Your task to perform on an android device: turn pop-ups off in chrome Image 0: 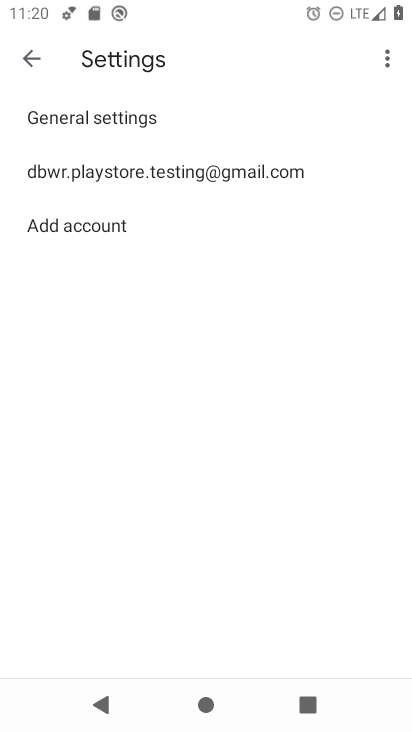
Step 0: press home button
Your task to perform on an android device: turn pop-ups off in chrome Image 1: 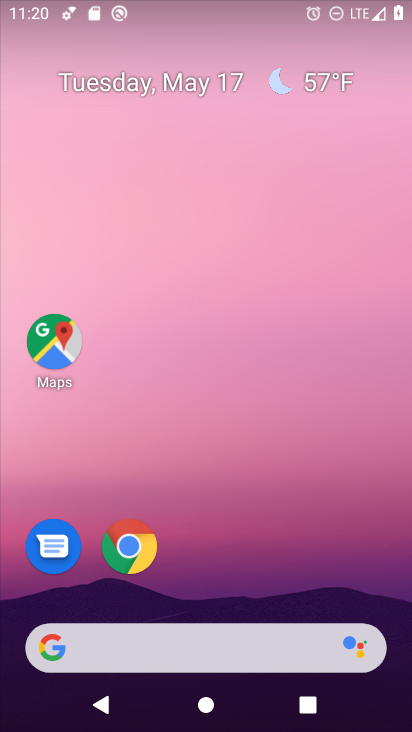
Step 1: click (131, 548)
Your task to perform on an android device: turn pop-ups off in chrome Image 2: 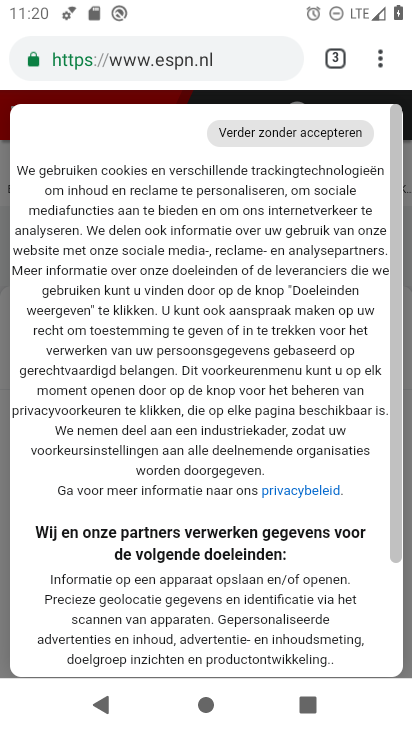
Step 2: click (131, 548)
Your task to perform on an android device: turn pop-ups off in chrome Image 3: 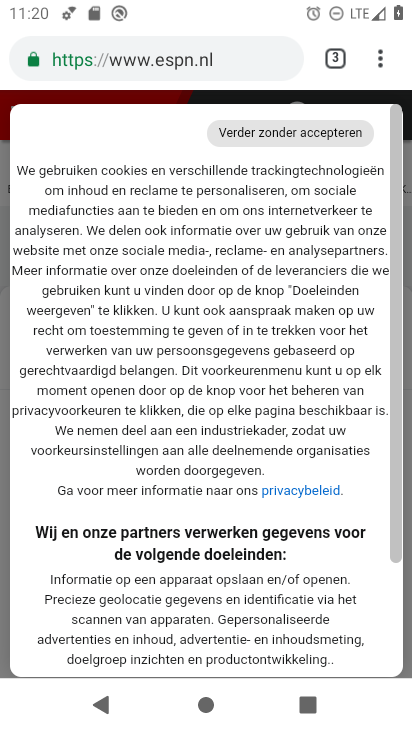
Step 3: click (378, 59)
Your task to perform on an android device: turn pop-ups off in chrome Image 4: 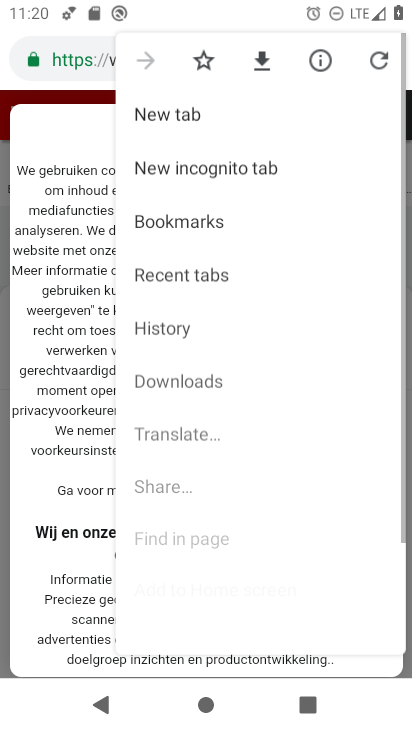
Step 4: click (382, 59)
Your task to perform on an android device: turn pop-ups off in chrome Image 5: 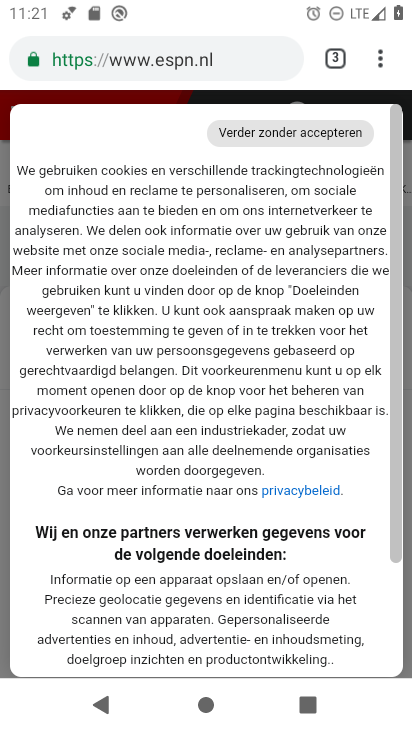
Step 5: click (382, 57)
Your task to perform on an android device: turn pop-ups off in chrome Image 6: 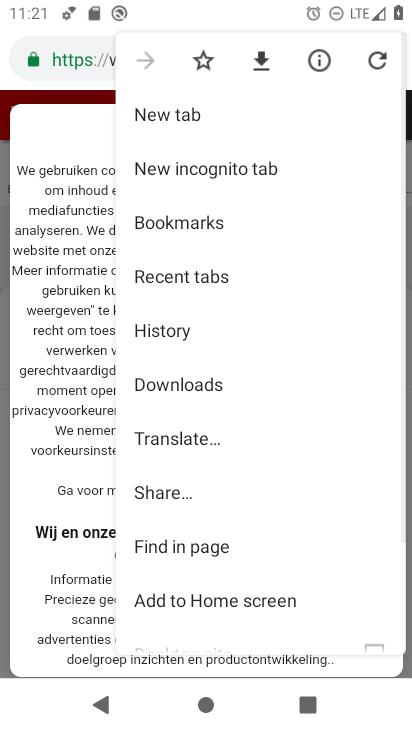
Step 6: drag from (181, 523) to (195, 119)
Your task to perform on an android device: turn pop-ups off in chrome Image 7: 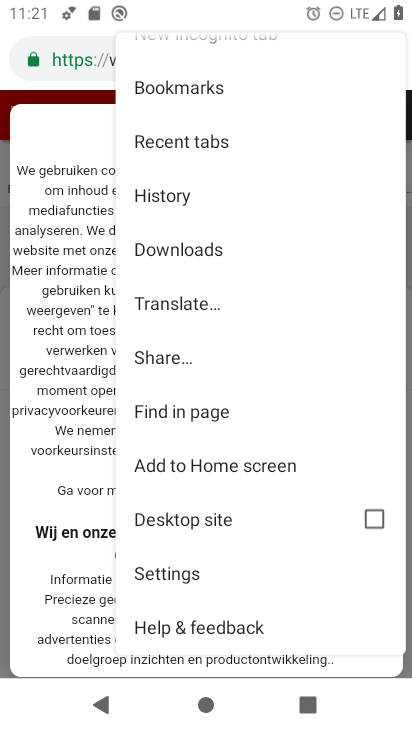
Step 7: click (151, 570)
Your task to perform on an android device: turn pop-ups off in chrome Image 8: 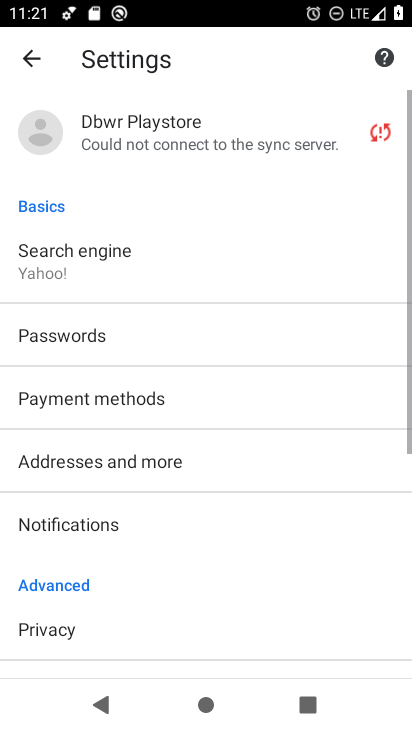
Step 8: drag from (151, 570) to (163, 190)
Your task to perform on an android device: turn pop-ups off in chrome Image 9: 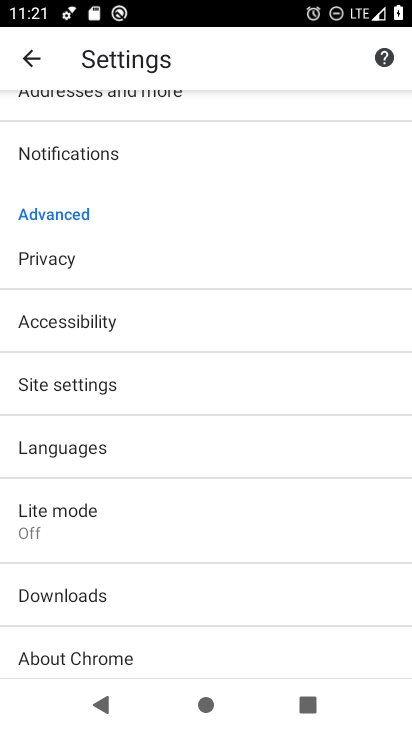
Step 9: click (79, 369)
Your task to perform on an android device: turn pop-ups off in chrome Image 10: 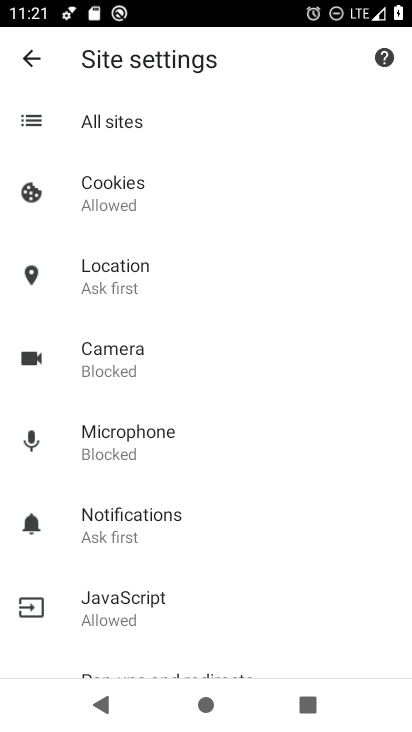
Step 10: drag from (161, 530) to (171, 264)
Your task to perform on an android device: turn pop-ups off in chrome Image 11: 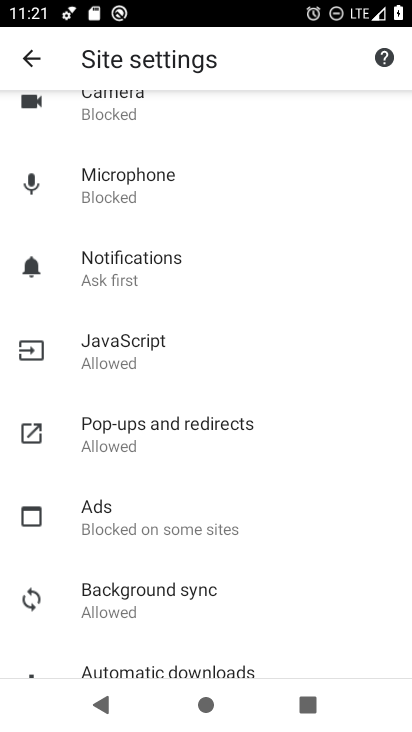
Step 11: click (105, 428)
Your task to perform on an android device: turn pop-ups off in chrome Image 12: 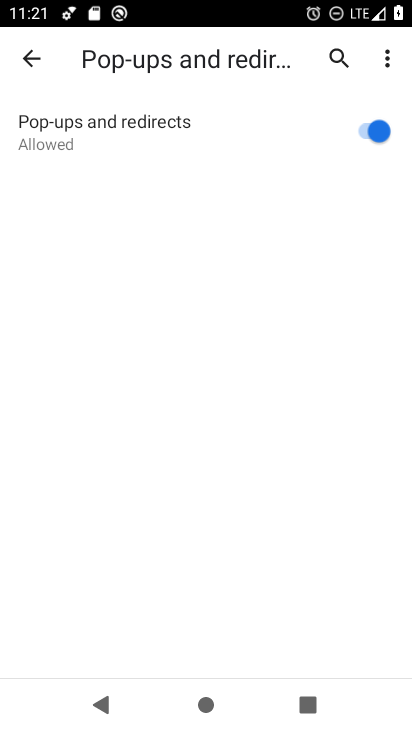
Step 12: click (376, 123)
Your task to perform on an android device: turn pop-ups off in chrome Image 13: 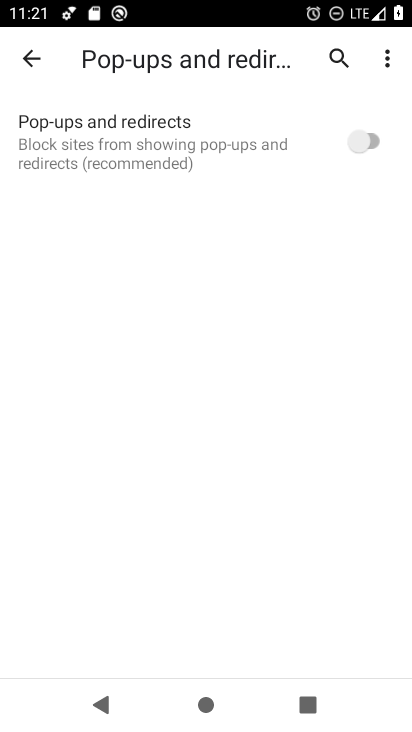
Step 13: task complete